Your task to perform on an android device: What's on my calendar today? Image 0: 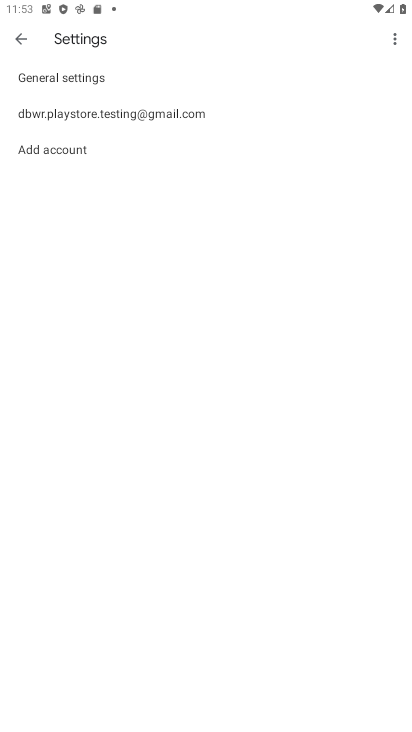
Step 0: press home button
Your task to perform on an android device: What's on my calendar today? Image 1: 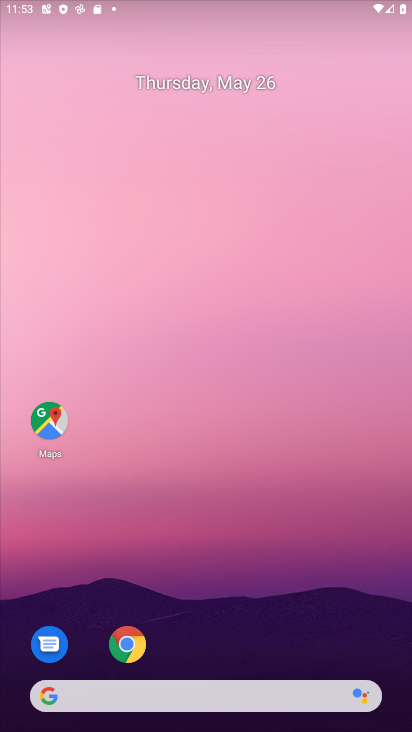
Step 1: drag from (358, 660) to (294, 80)
Your task to perform on an android device: What's on my calendar today? Image 2: 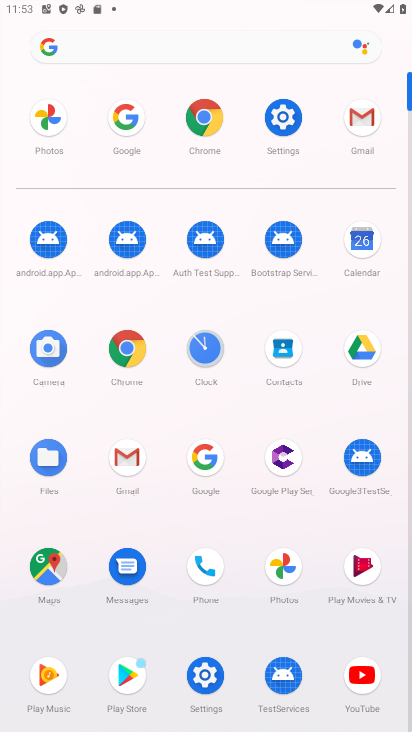
Step 2: click (373, 249)
Your task to perform on an android device: What's on my calendar today? Image 3: 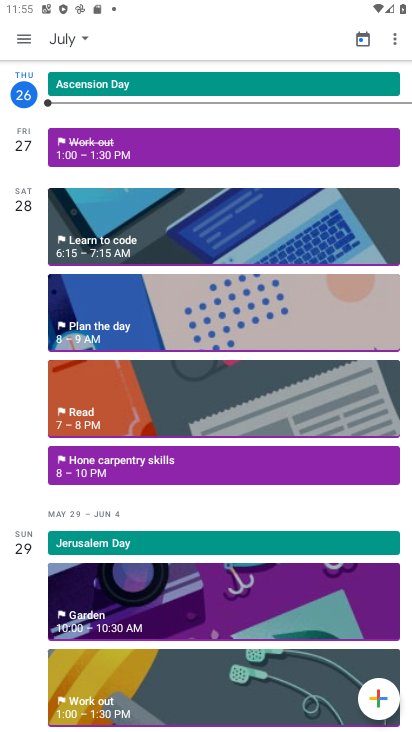
Step 3: task complete